Your task to perform on an android device: Open calendar and show me the first week of next month Image 0: 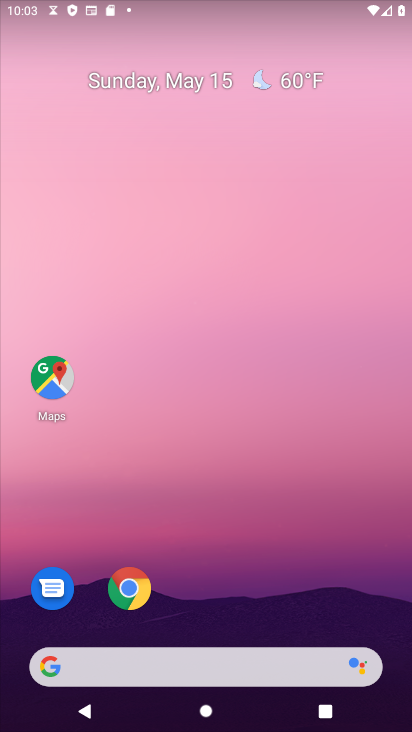
Step 0: drag from (213, 613) to (253, 341)
Your task to perform on an android device: Open calendar and show me the first week of next month Image 1: 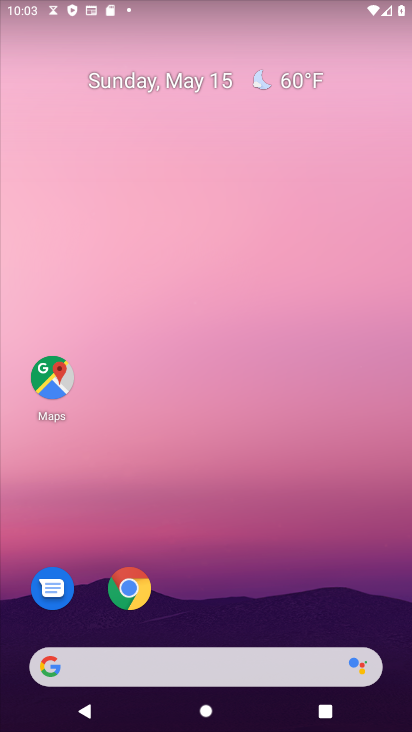
Step 1: drag from (237, 629) to (278, 18)
Your task to perform on an android device: Open calendar and show me the first week of next month Image 2: 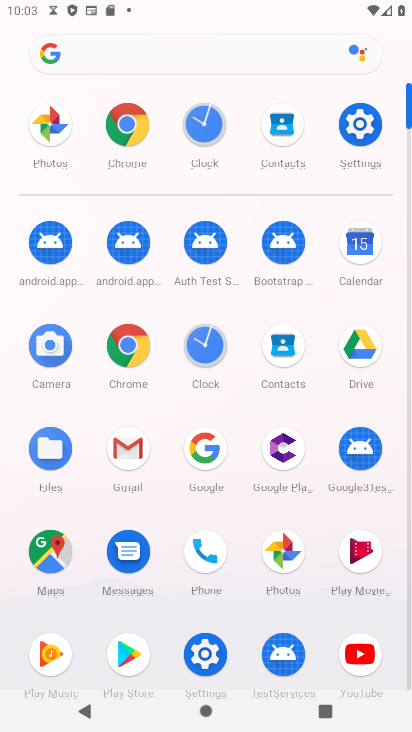
Step 2: click (364, 240)
Your task to perform on an android device: Open calendar and show me the first week of next month Image 3: 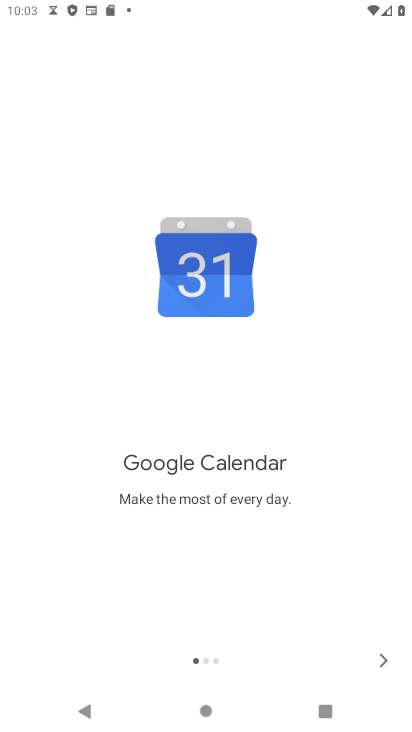
Step 3: click (384, 659)
Your task to perform on an android device: Open calendar and show me the first week of next month Image 4: 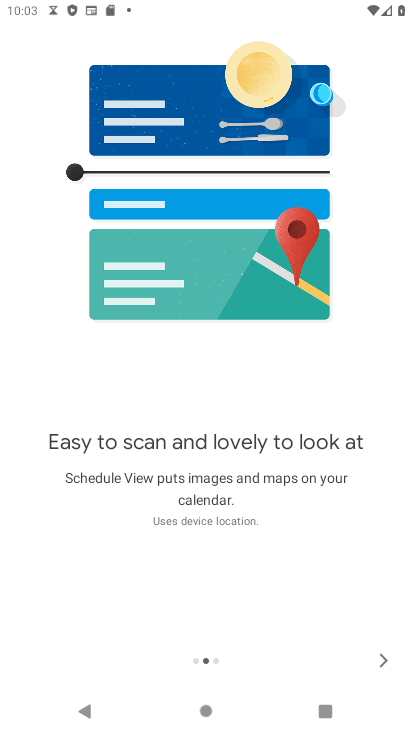
Step 4: click (384, 659)
Your task to perform on an android device: Open calendar and show me the first week of next month Image 5: 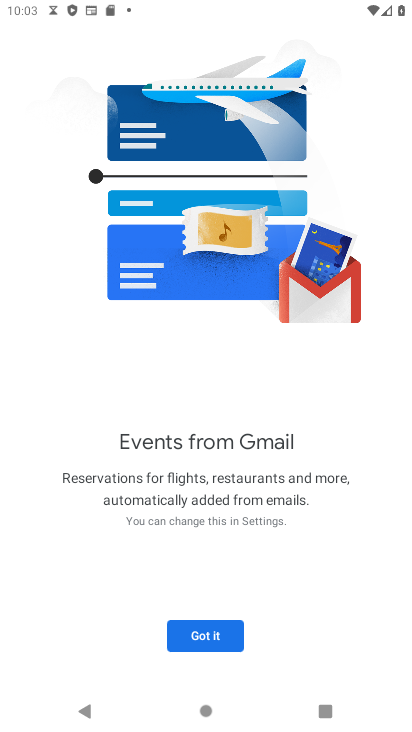
Step 5: click (218, 638)
Your task to perform on an android device: Open calendar and show me the first week of next month Image 6: 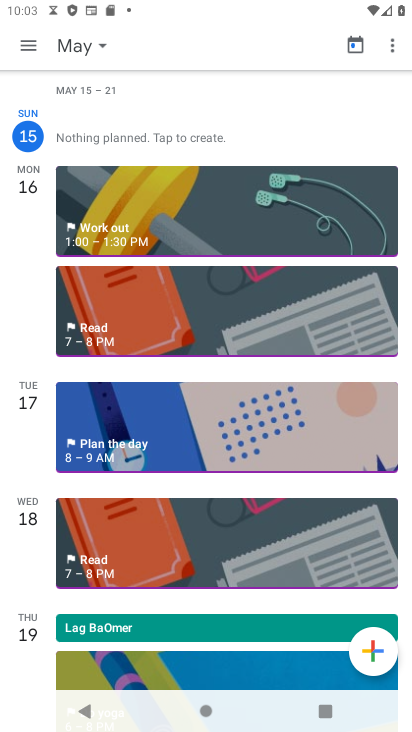
Step 6: click (36, 46)
Your task to perform on an android device: Open calendar and show me the first week of next month Image 7: 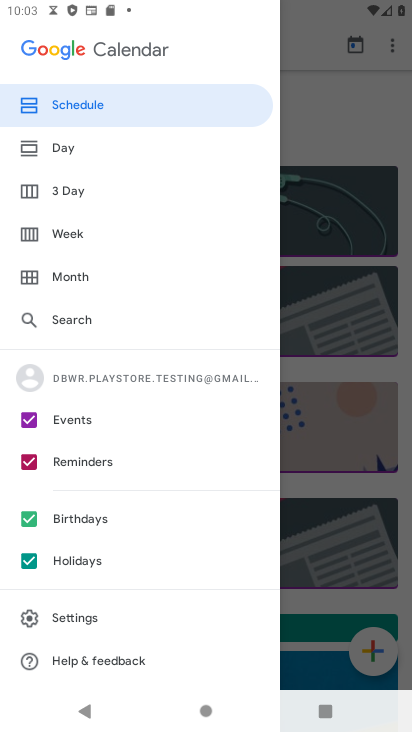
Step 7: click (85, 237)
Your task to perform on an android device: Open calendar and show me the first week of next month Image 8: 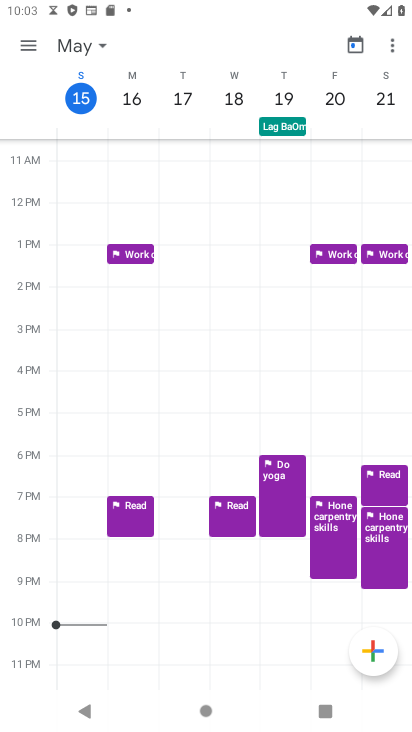
Step 8: click (103, 36)
Your task to perform on an android device: Open calendar and show me the first week of next month Image 9: 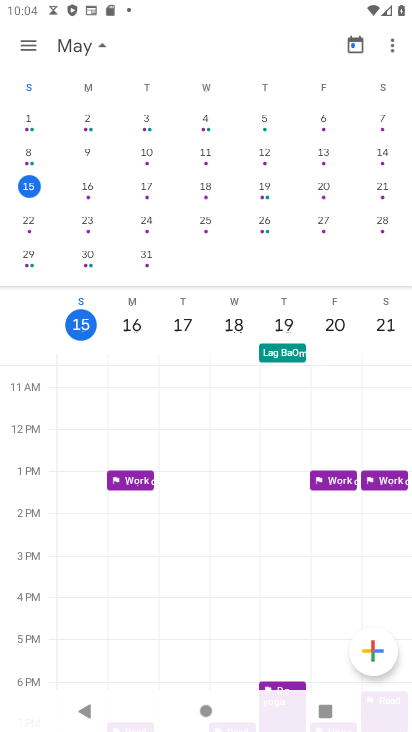
Step 9: drag from (368, 220) to (7, 216)
Your task to perform on an android device: Open calendar and show me the first week of next month Image 10: 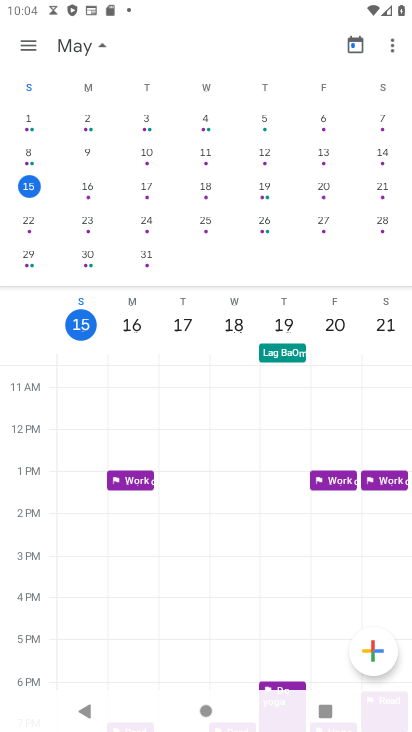
Step 10: drag from (377, 176) to (139, 167)
Your task to perform on an android device: Open calendar and show me the first week of next month Image 11: 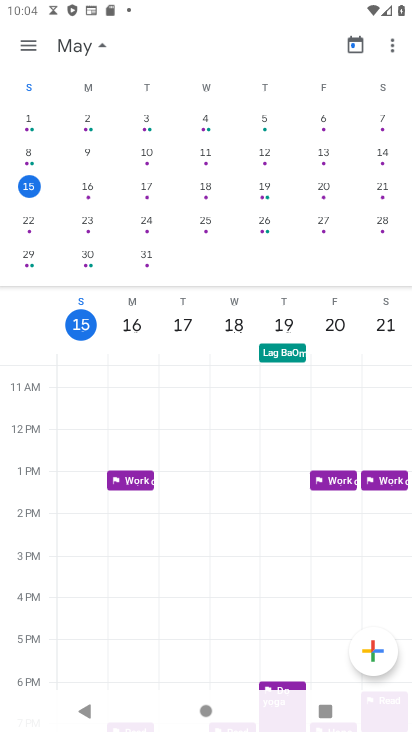
Step 11: drag from (363, 177) to (60, 152)
Your task to perform on an android device: Open calendar and show me the first week of next month Image 12: 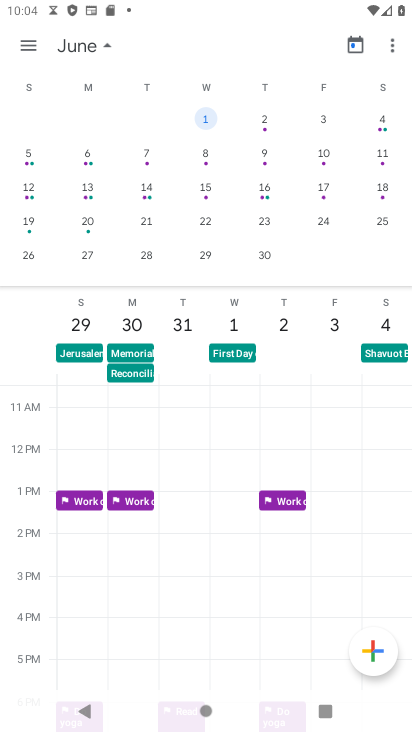
Step 12: click (209, 125)
Your task to perform on an android device: Open calendar and show me the first week of next month Image 13: 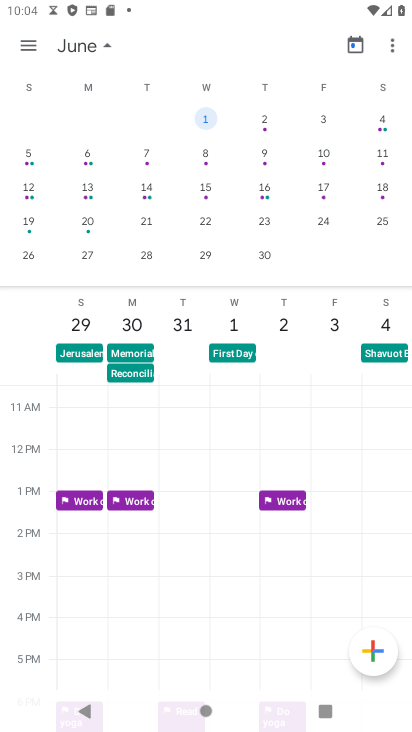
Step 13: task complete